Your task to perform on an android device: What's on my calendar tomorrow? Image 0: 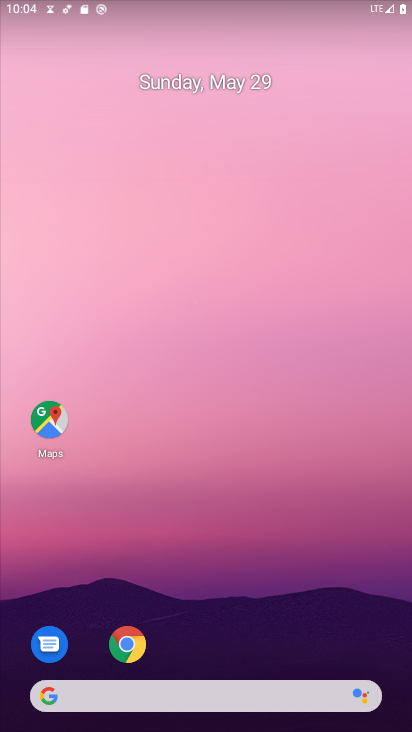
Step 0: drag from (94, 731) to (118, 63)
Your task to perform on an android device: What's on my calendar tomorrow? Image 1: 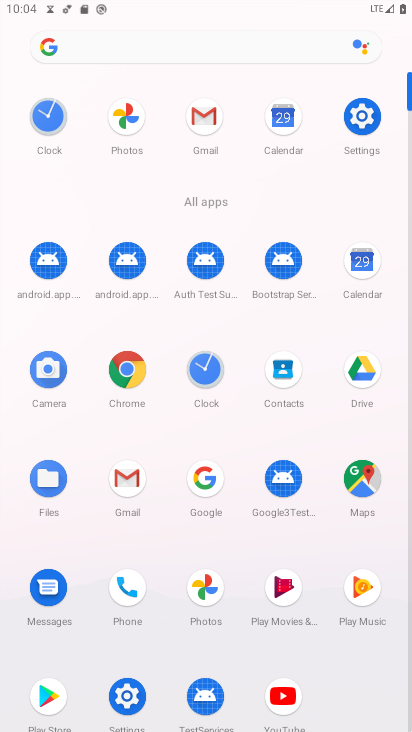
Step 1: click (359, 260)
Your task to perform on an android device: What's on my calendar tomorrow? Image 2: 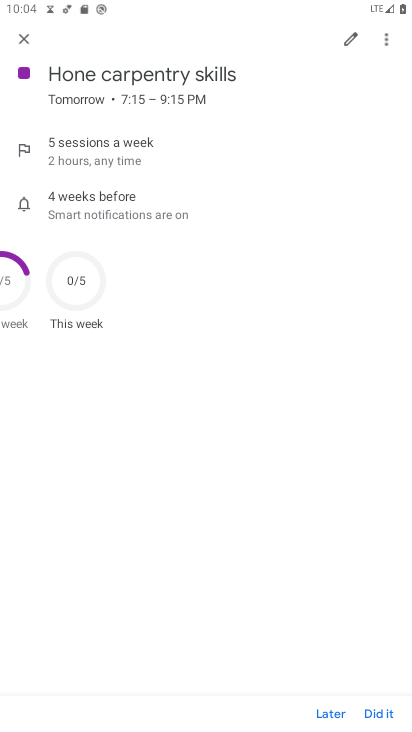
Step 2: task complete